Your task to perform on an android device: turn off picture-in-picture Image 0: 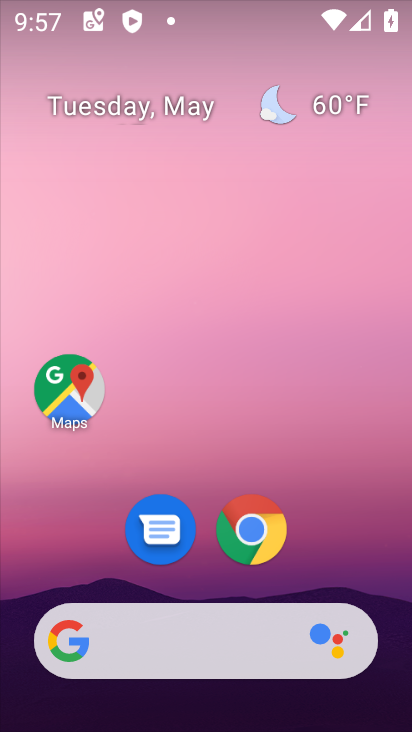
Step 0: click (257, 525)
Your task to perform on an android device: turn off picture-in-picture Image 1: 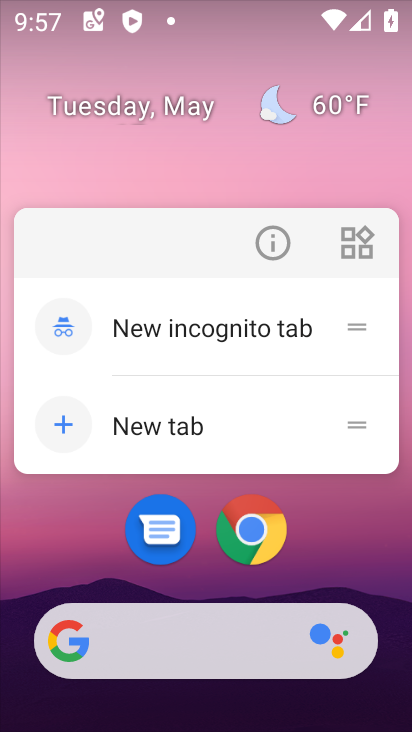
Step 1: click (272, 248)
Your task to perform on an android device: turn off picture-in-picture Image 2: 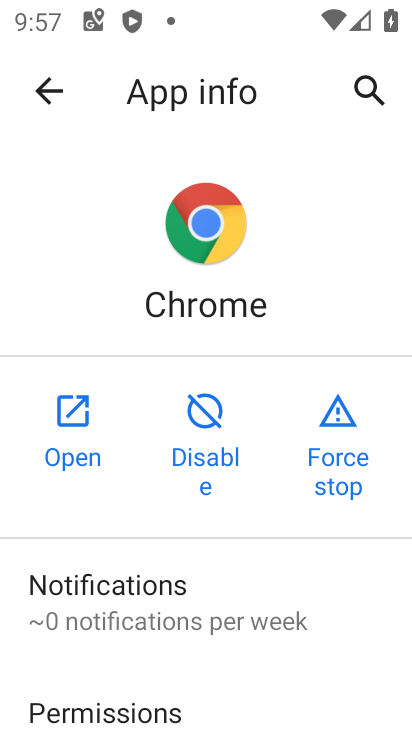
Step 2: drag from (135, 683) to (130, 314)
Your task to perform on an android device: turn off picture-in-picture Image 3: 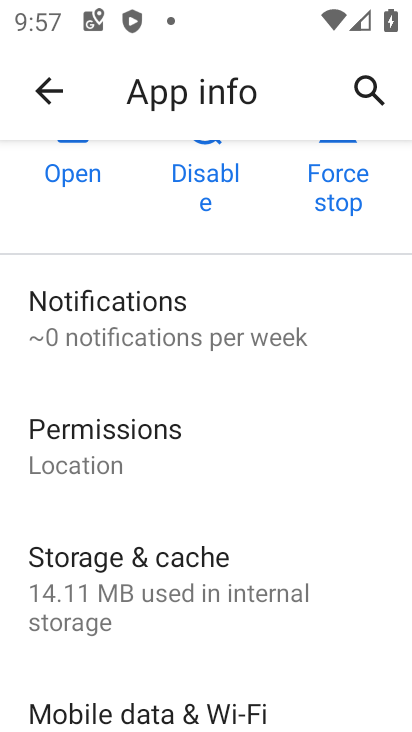
Step 3: drag from (124, 656) to (117, 425)
Your task to perform on an android device: turn off picture-in-picture Image 4: 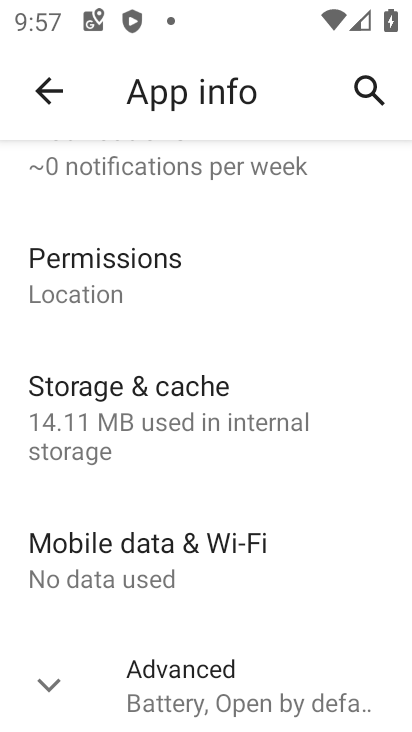
Step 4: drag from (127, 679) to (132, 443)
Your task to perform on an android device: turn off picture-in-picture Image 5: 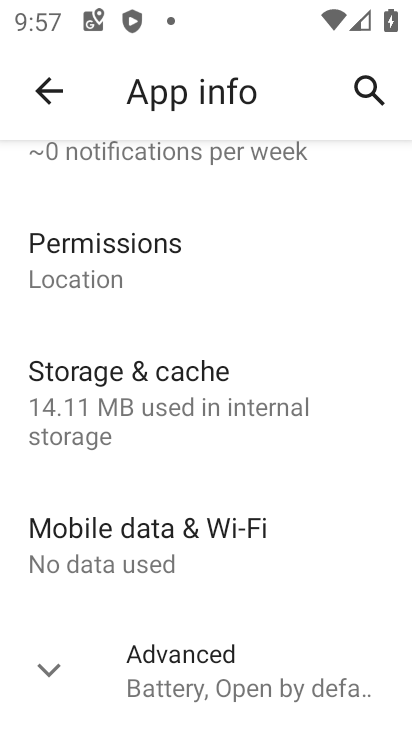
Step 5: click (163, 676)
Your task to perform on an android device: turn off picture-in-picture Image 6: 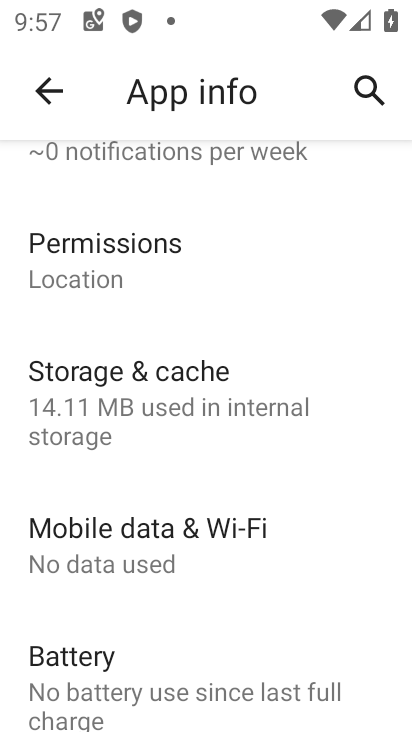
Step 6: drag from (23, 677) to (82, 412)
Your task to perform on an android device: turn off picture-in-picture Image 7: 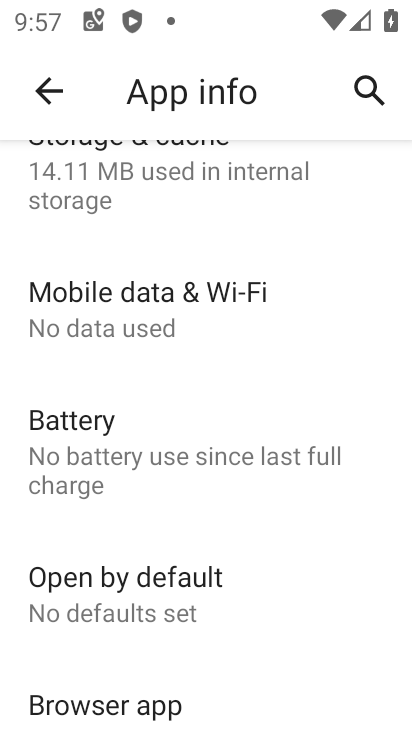
Step 7: drag from (97, 722) to (126, 433)
Your task to perform on an android device: turn off picture-in-picture Image 8: 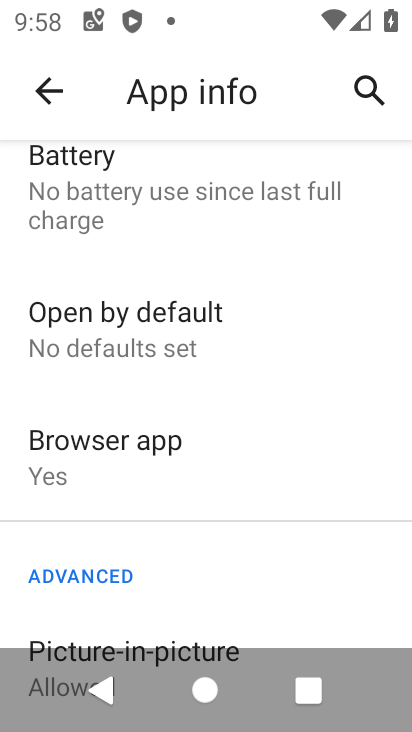
Step 8: drag from (119, 648) to (118, 398)
Your task to perform on an android device: turn off picture-in-picture Image 9: 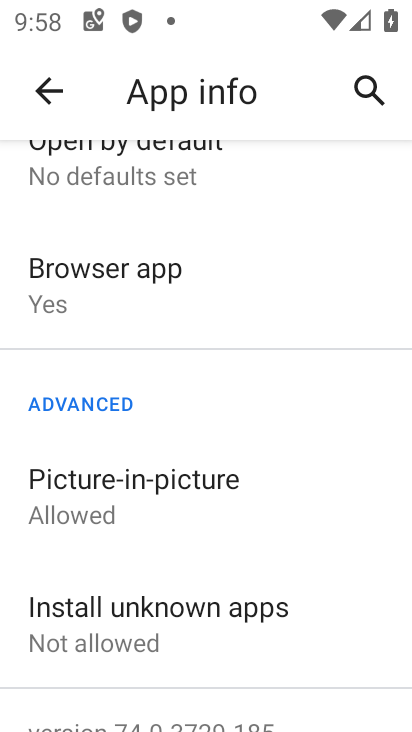
Step 9: drag from (120, 242) to (157, 533)
Your task to perform on an android device: turn off picture-in-picture Image 10: 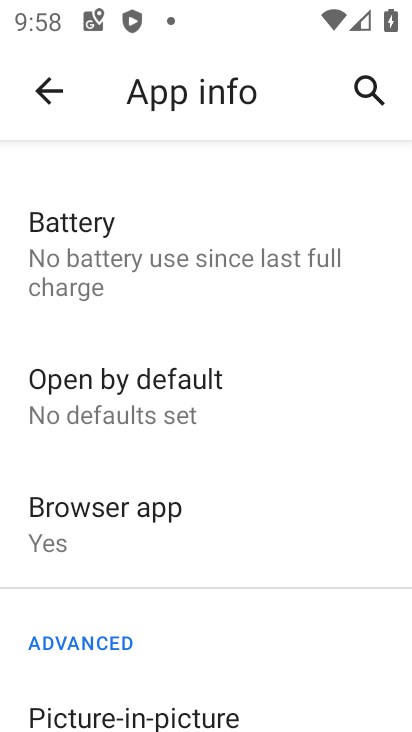
Step 10: click (88, 723)
Your task to perform on an android device: turn off picture-in-picture Image 11: 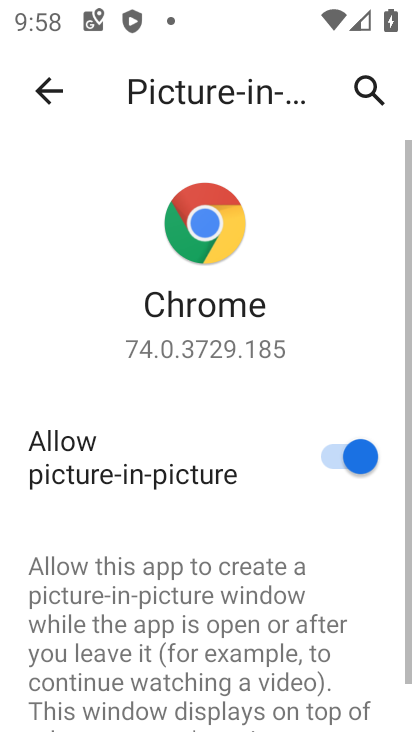
Step 11: click (324, 455)
Your task to perform on an android device: turn off picture-in-picture Image 12: 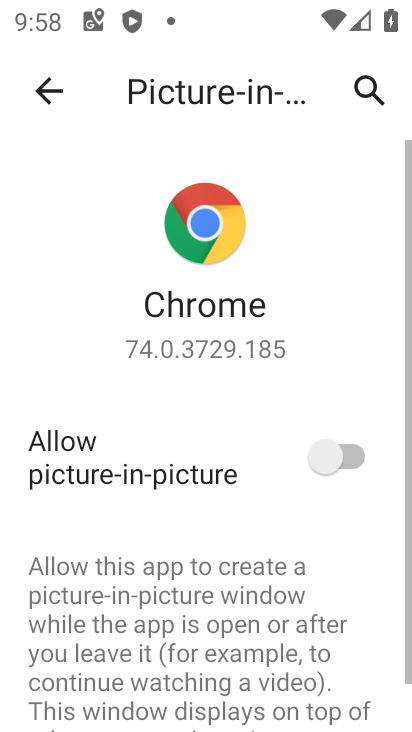
Step 12: task complete